Your task to perform on an android device: delete location history Image 0: 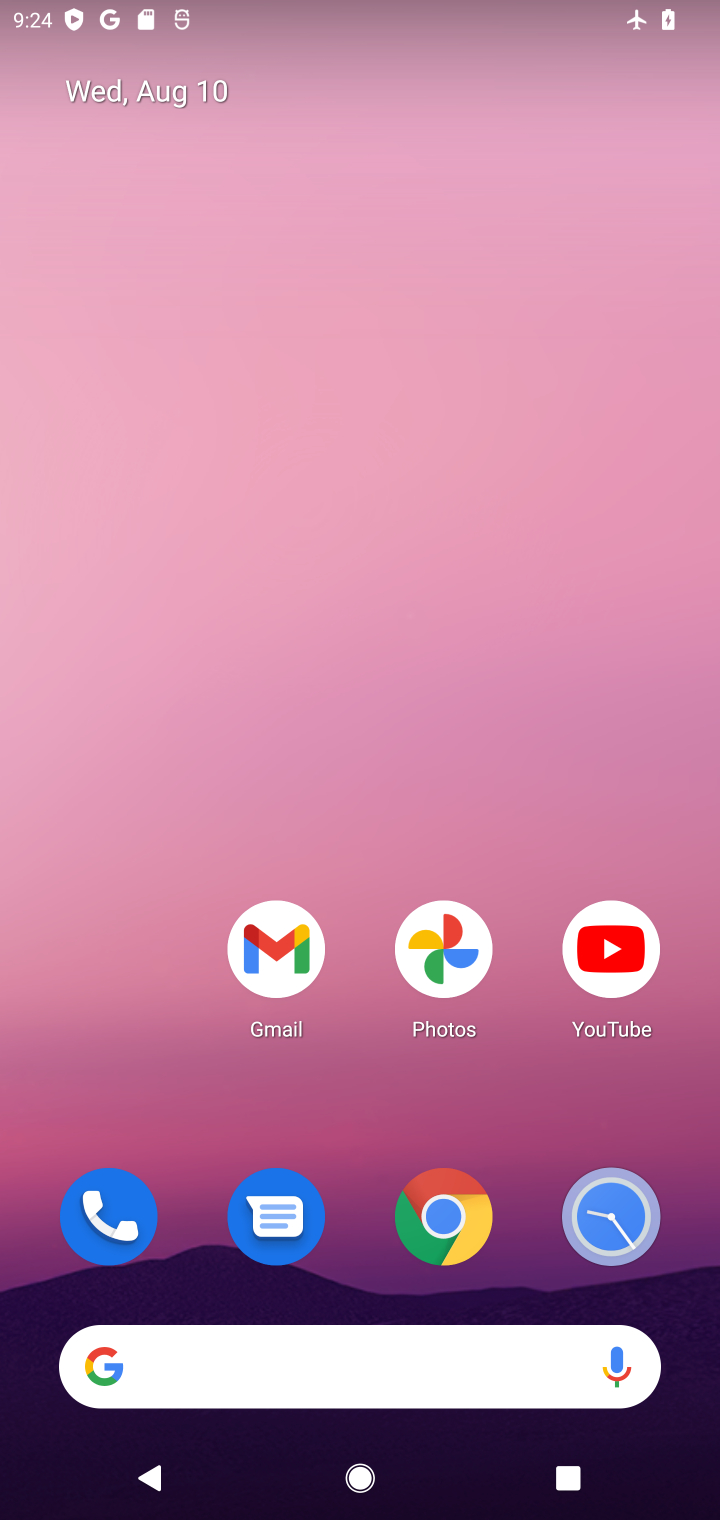
Step 0: drag from (48, 1068) to (487, 298)
Your task to perform on an android device: delete location history Image 1: 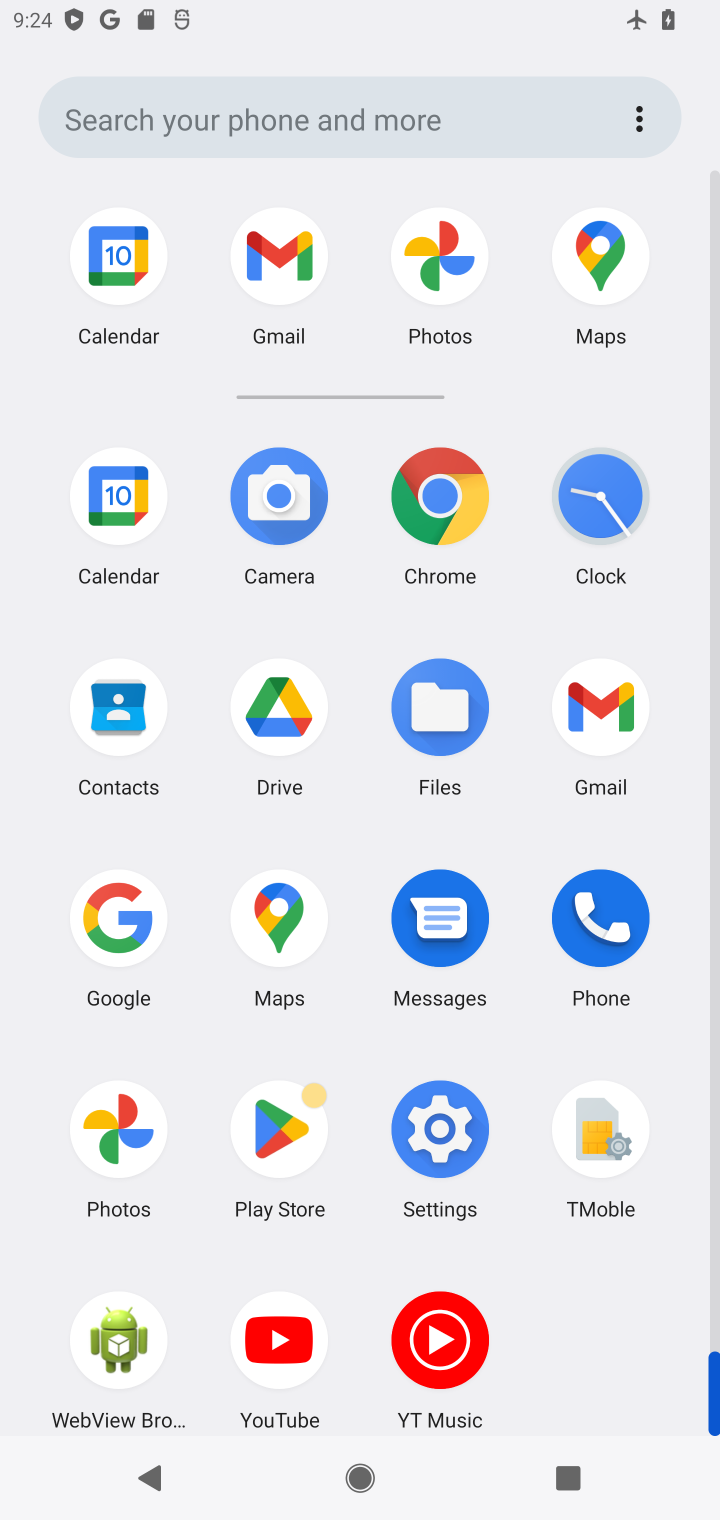
Step 1: click (420, 1127)
Your task to perform on an android device: delete location history Image 2: 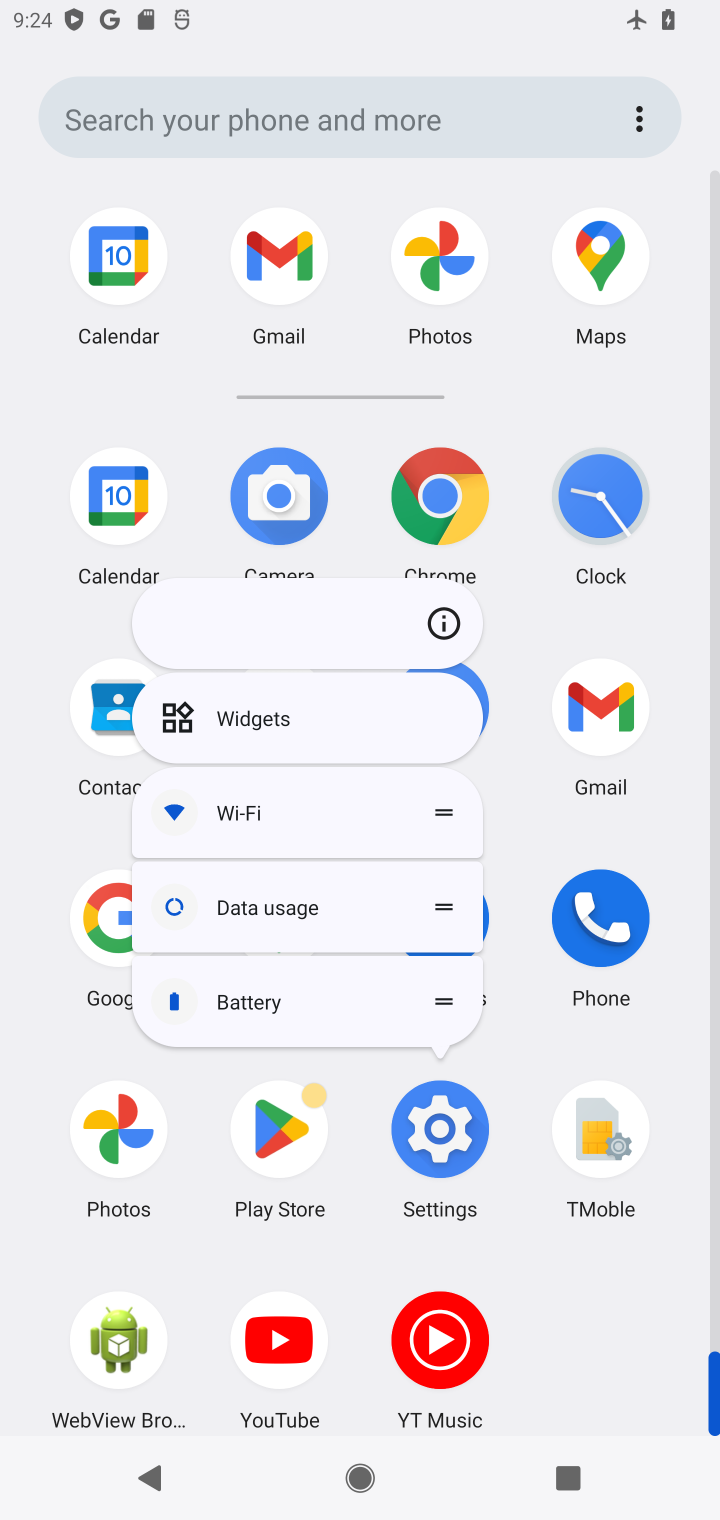
Step 2: click (445, 1155)
Your task to perform on an android device: delete location history Image 3: 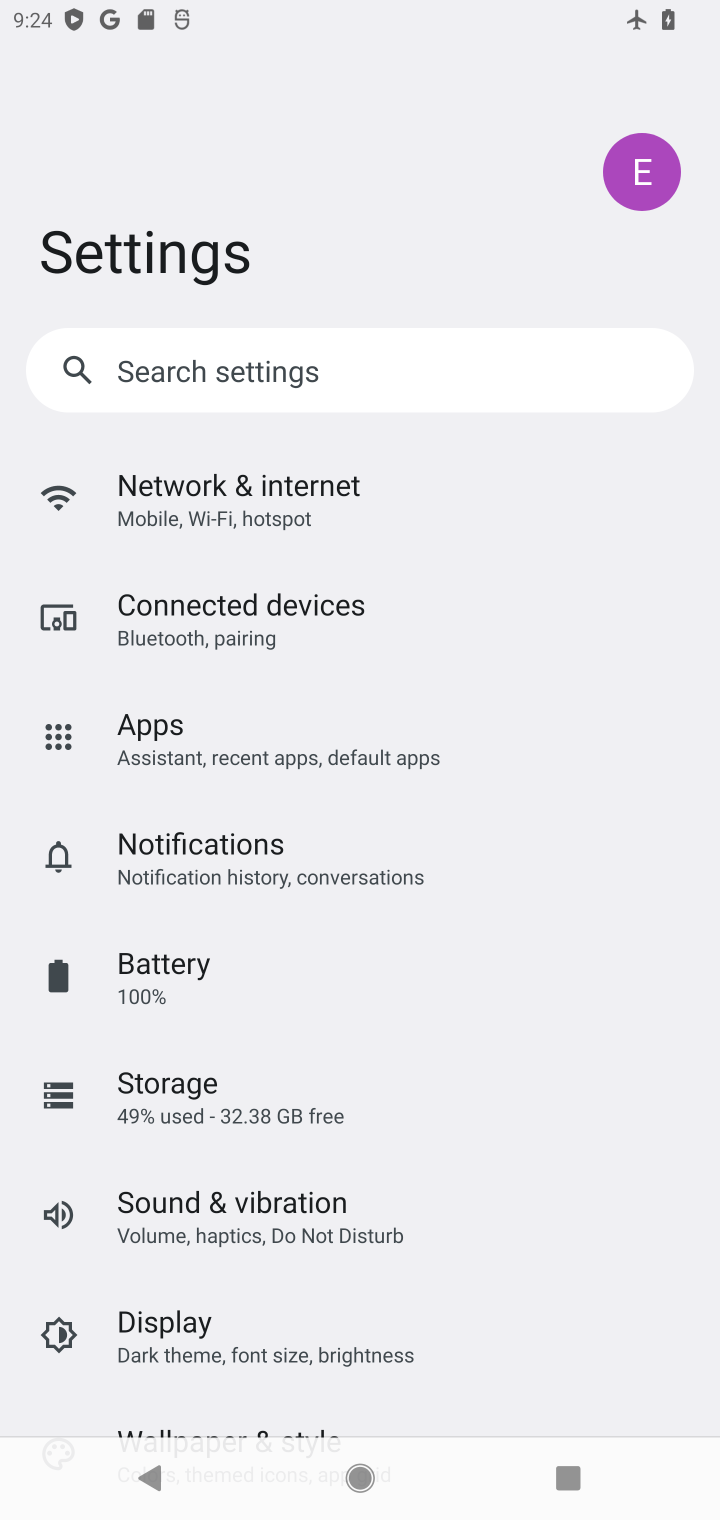
Step 3: click (334, 514)
Your task to perform on an android device: delete location history Image 4: 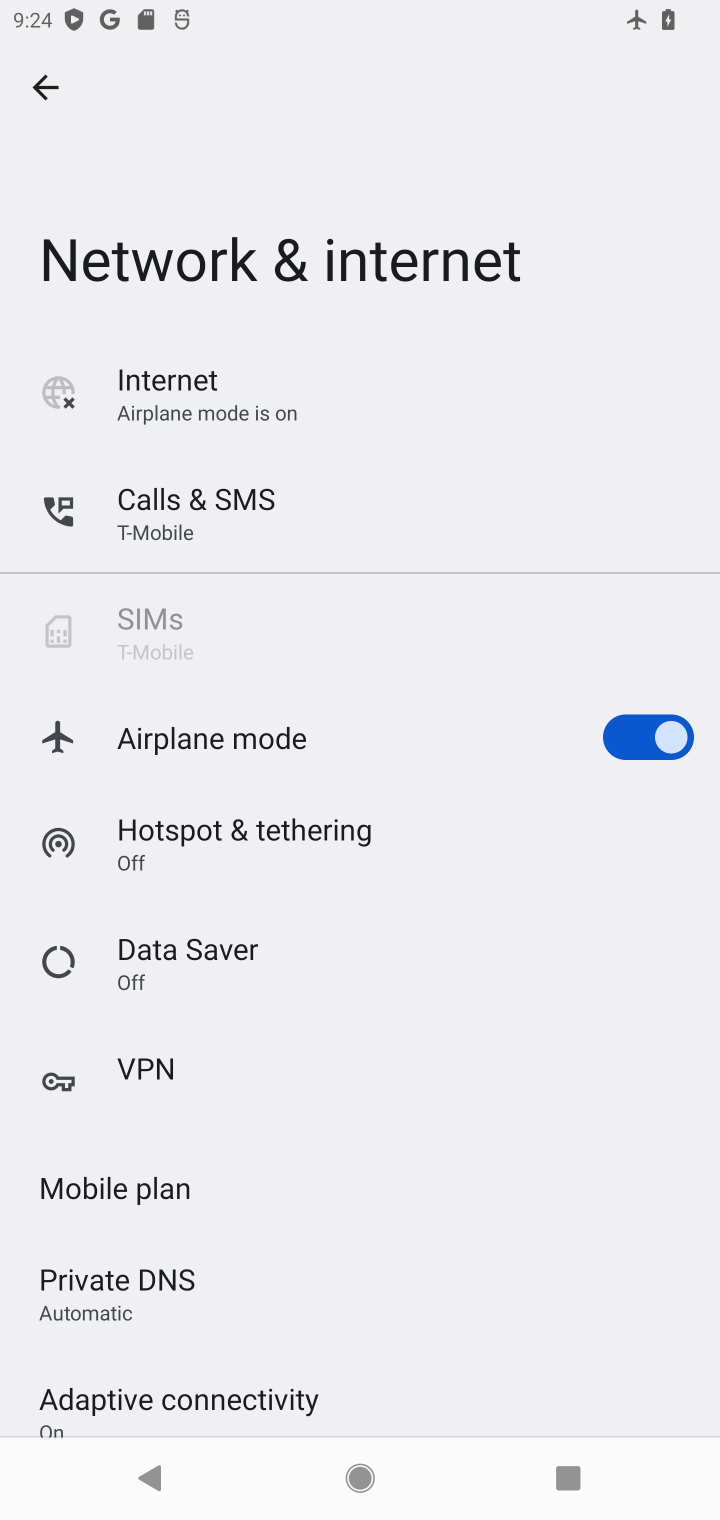
Step 4: click (673, 726)
Your task to perform on an android device: delete location history Image 5: 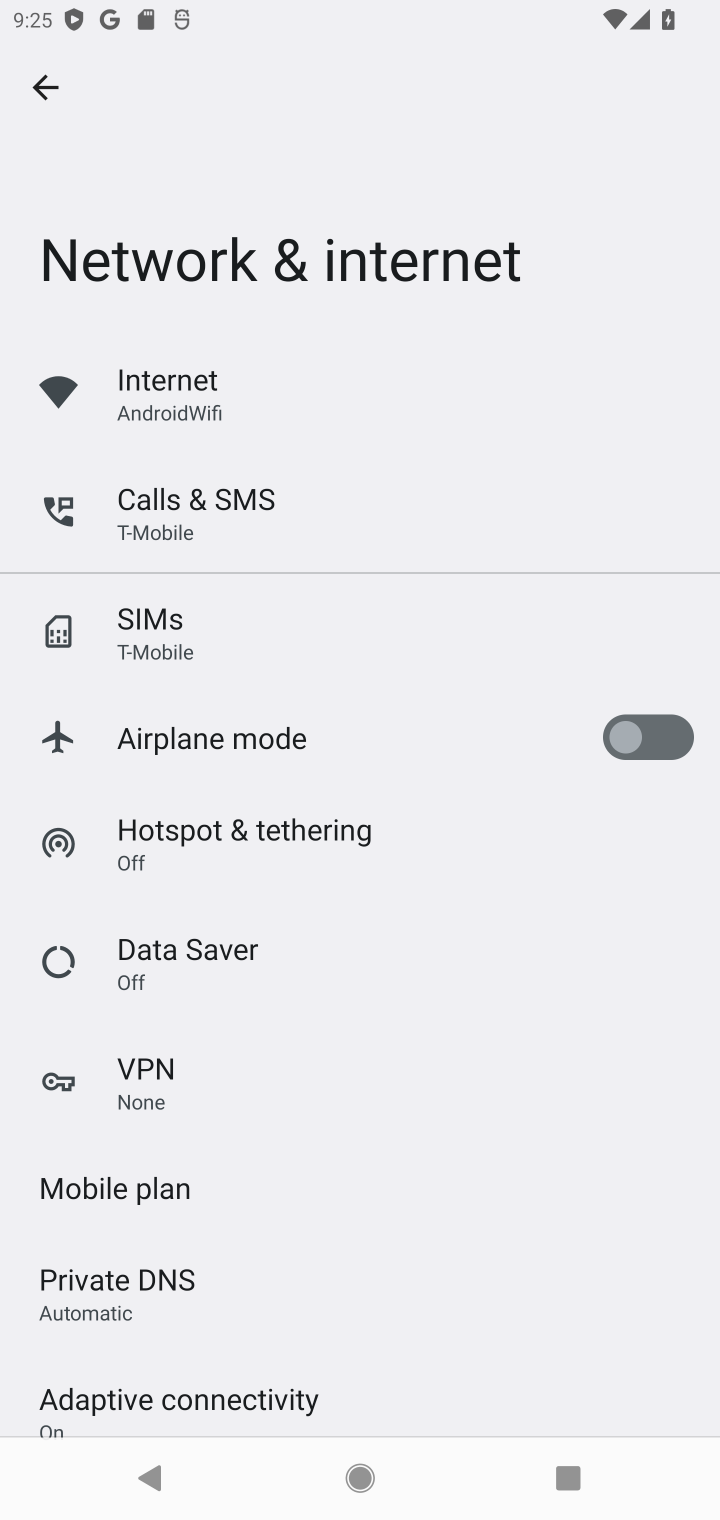
Step 5: press home button
Your task to perform on an android device: delete location history Image 6: 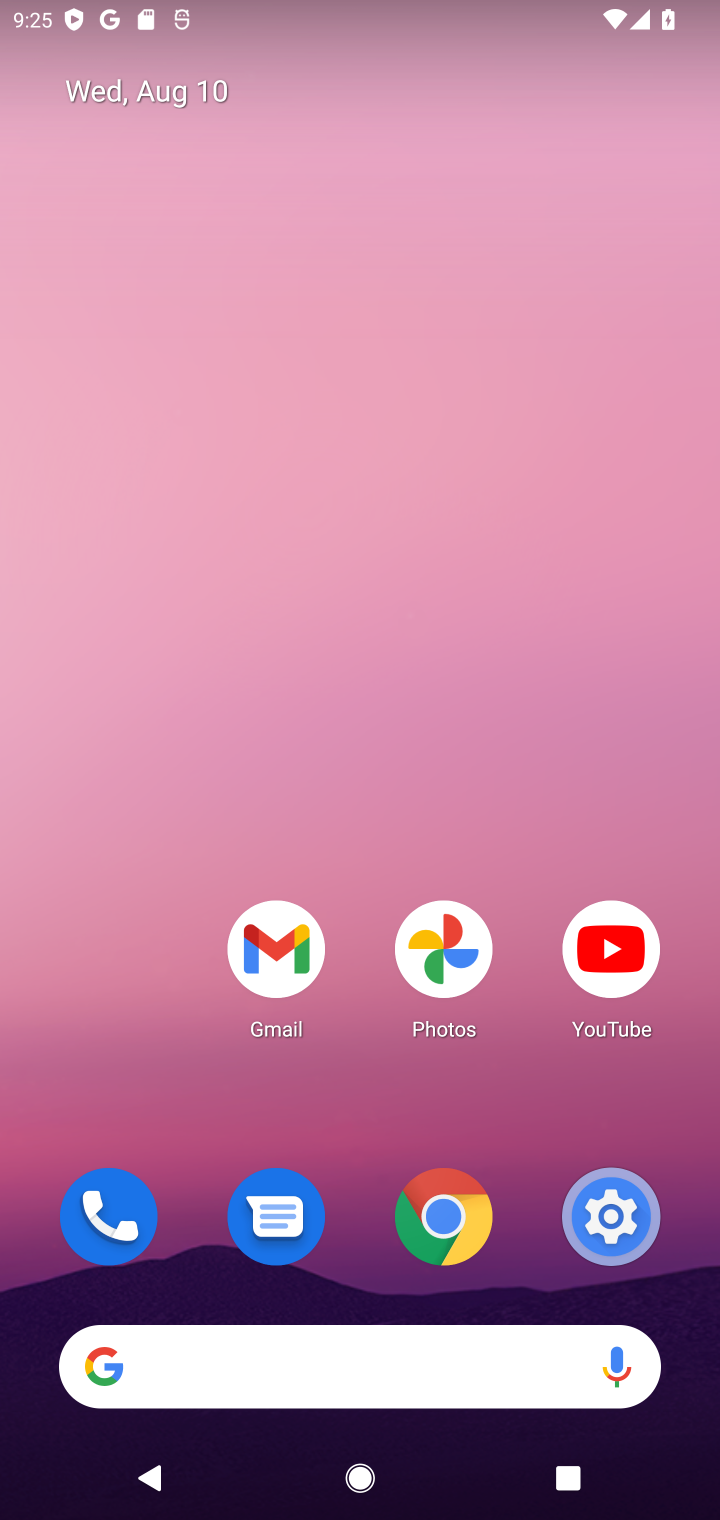
Step 6: drag from (32, 1031) to (288, 360)
Your task to perform on an android device: delete location history Image 7: 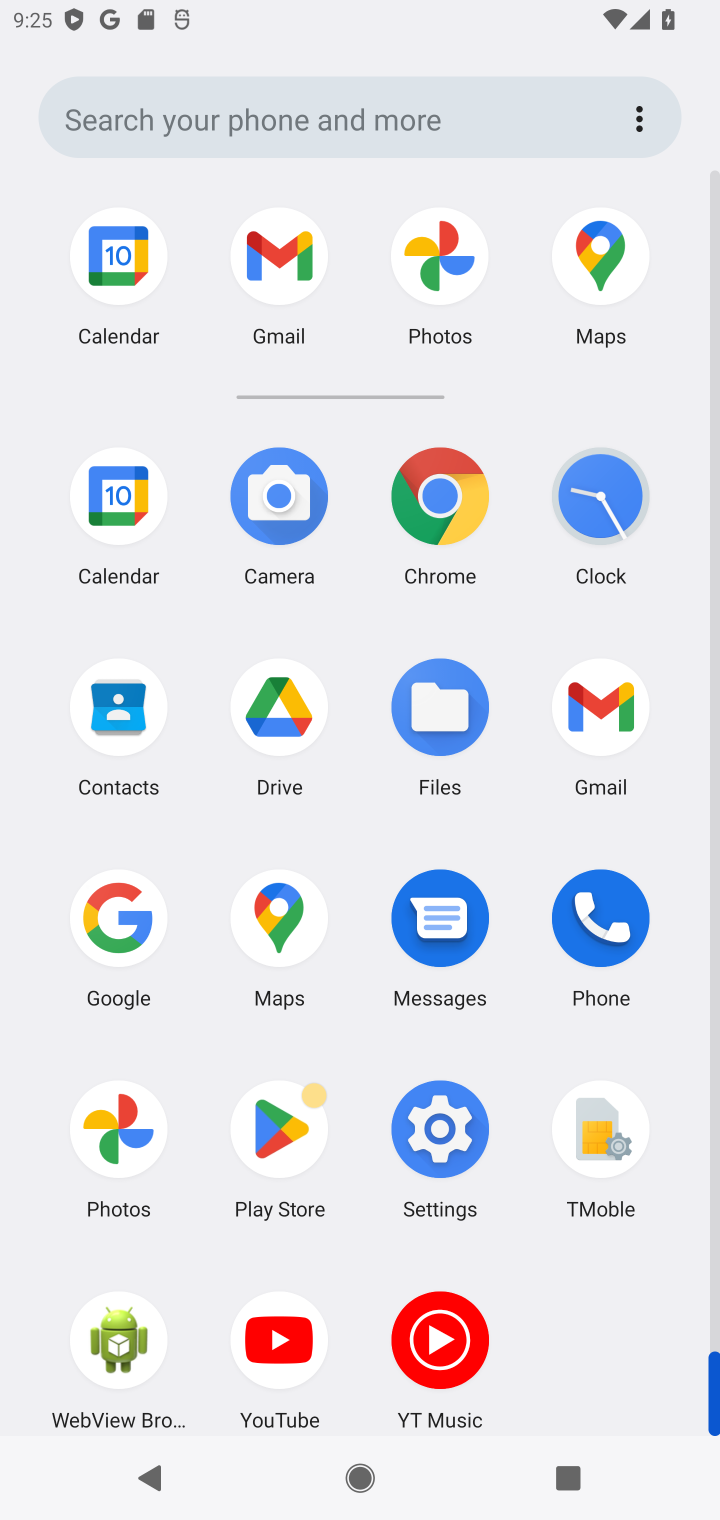
Step 7: click (412, 1134)
Your task to perform on an android device: delete location history Image 8: 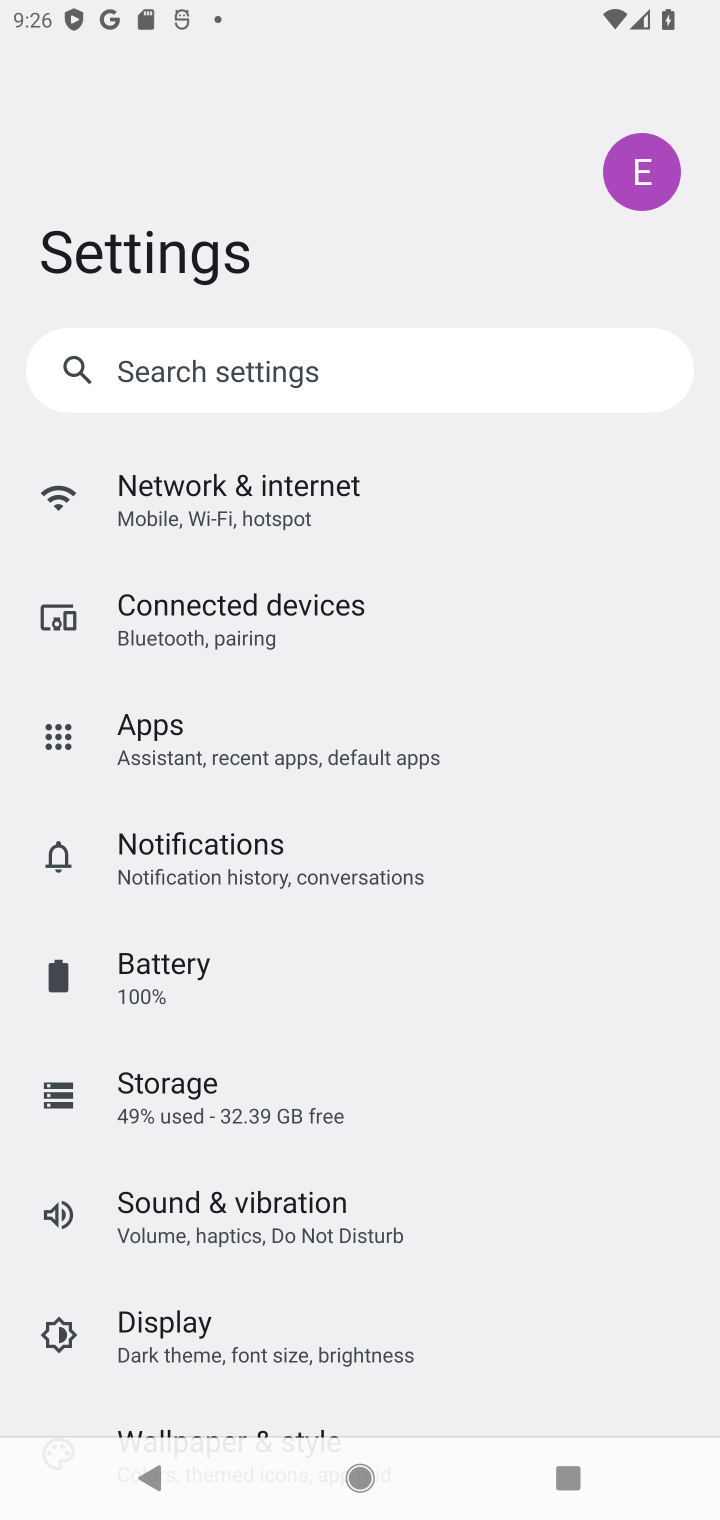
Step 8: drag from (72, 1215) to (410, 454)
Your task to perform on an android device: delete location history Image 9: 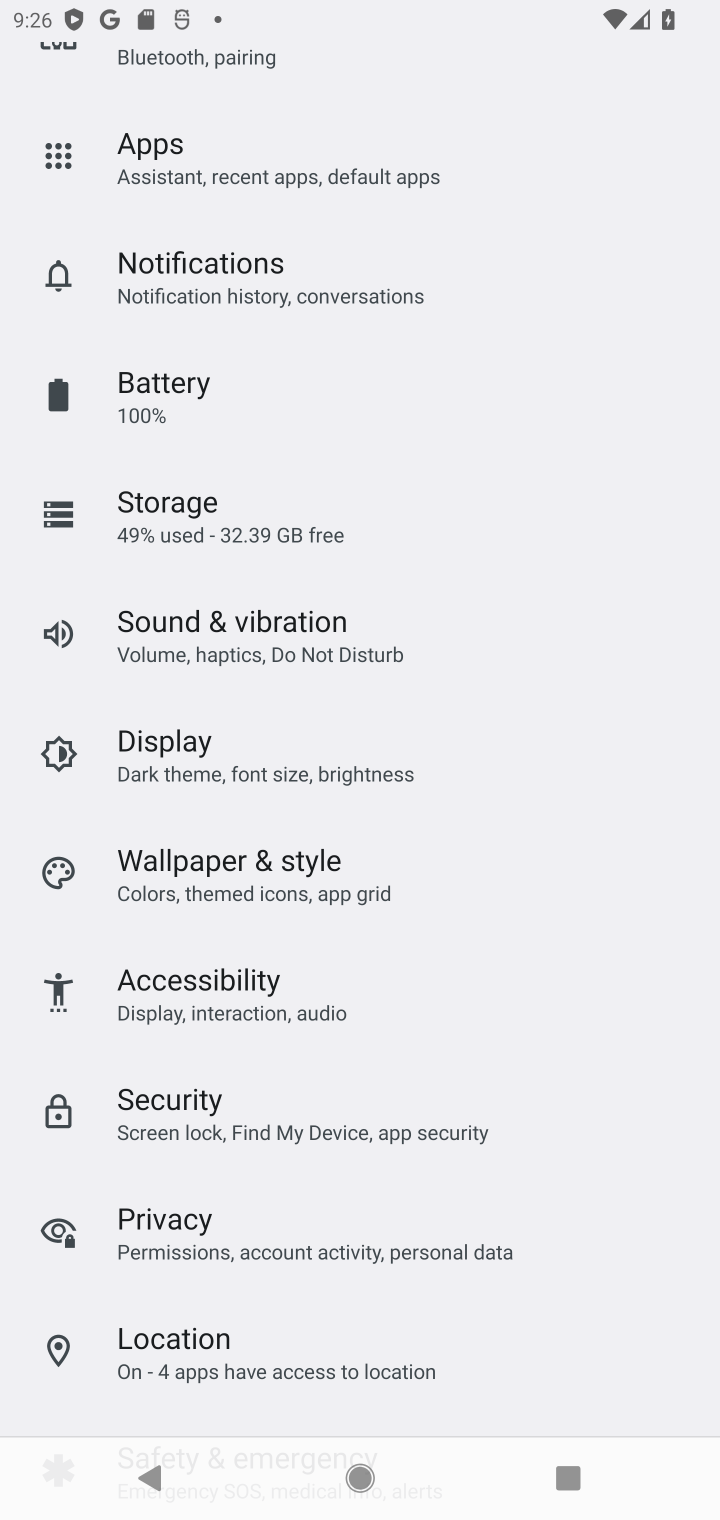
Step 9: click (244, 1346)
Your task to perform on an android device: delete location history Image 10: 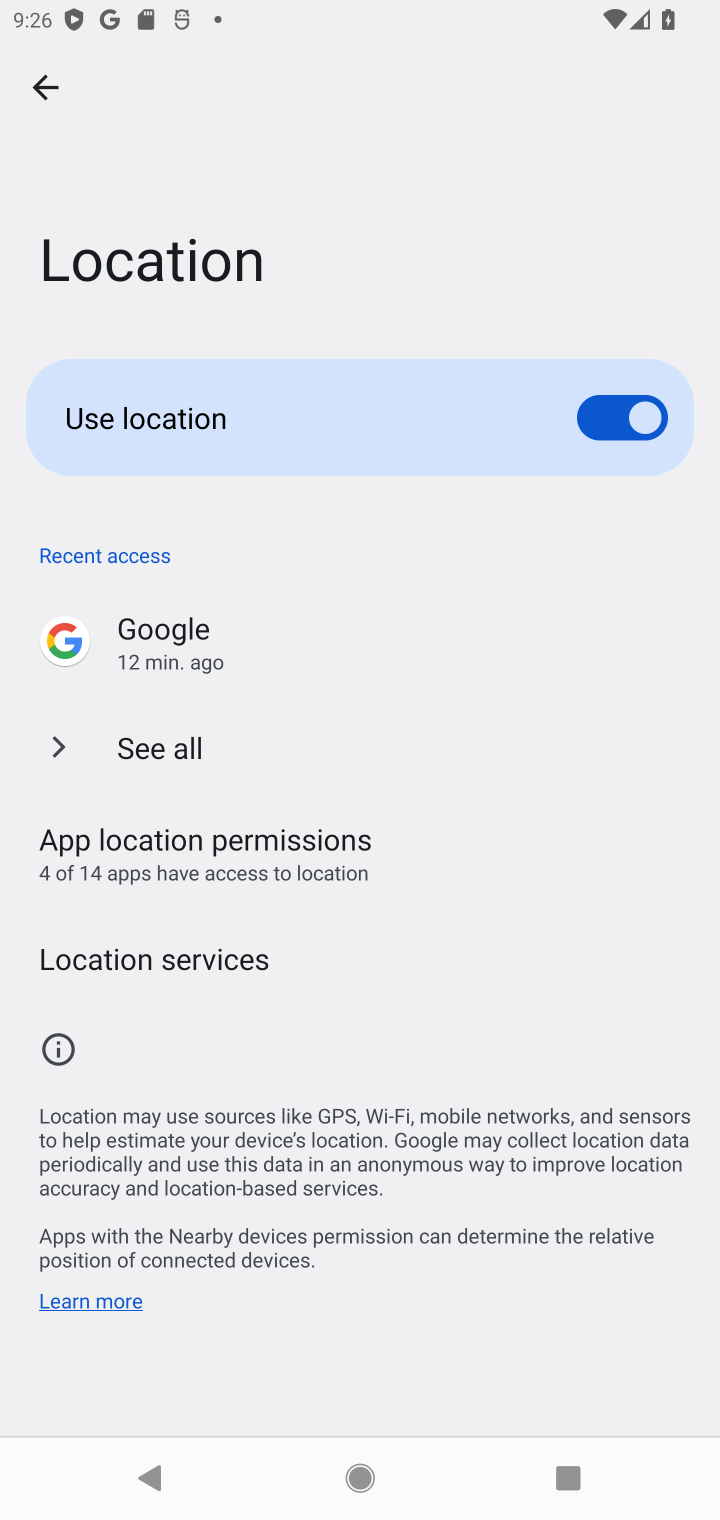
Step 10: click (306, 858)
Your task to perform on an android device: delete location history Image 11: 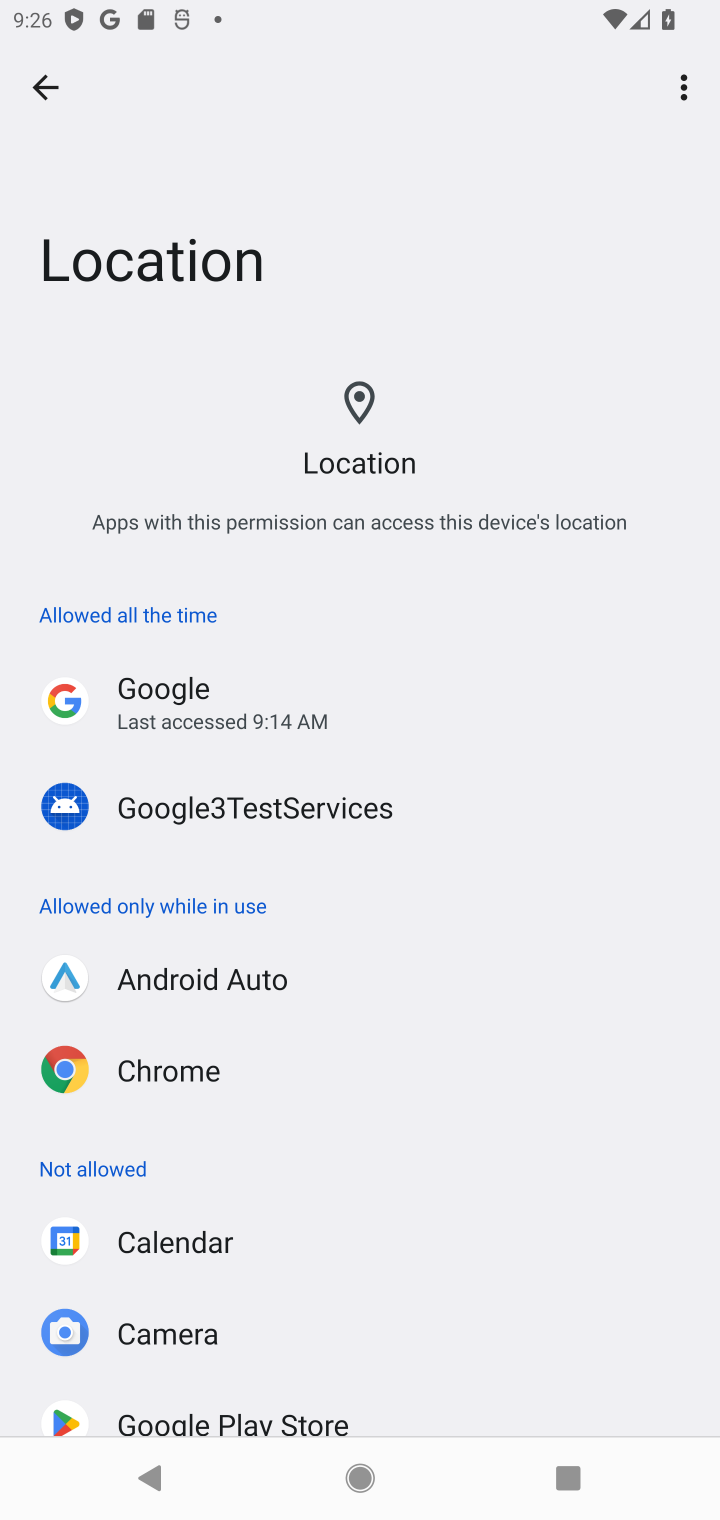
Step 11: task complete